Your task to perform on an android device: Open notification settings Image 0: 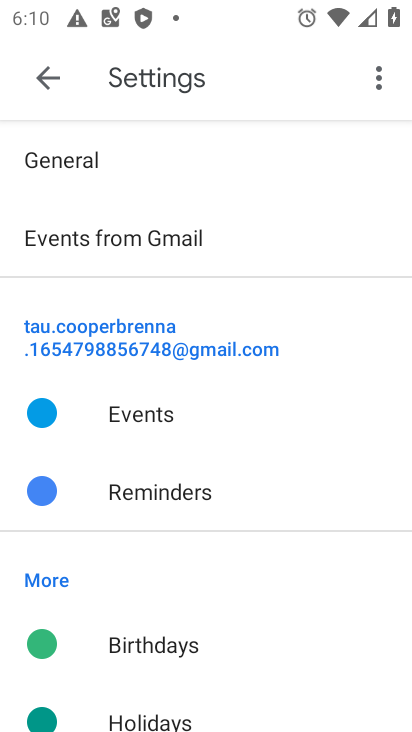
Step 0: press home button
Your task to perform on an android device: Open notification settings Image 1: 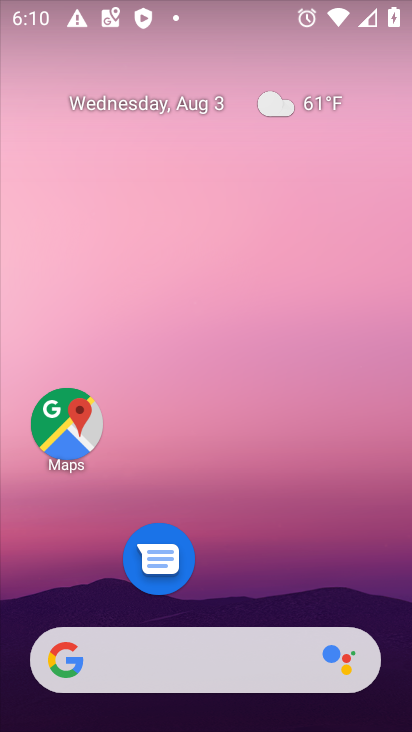
Step 1: drag from (194, 634) to (214, 217)
Your task to perform on an android device: Open notification settings Image 2: 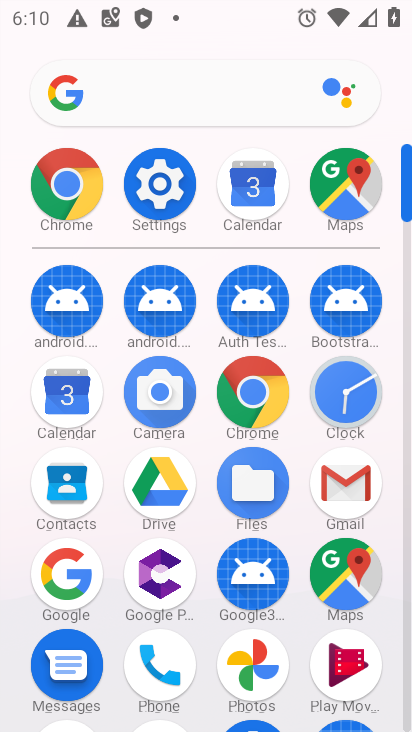
Step 2: click (165, 188)
Your task to perform on an android device: Open notification settings Image 3: 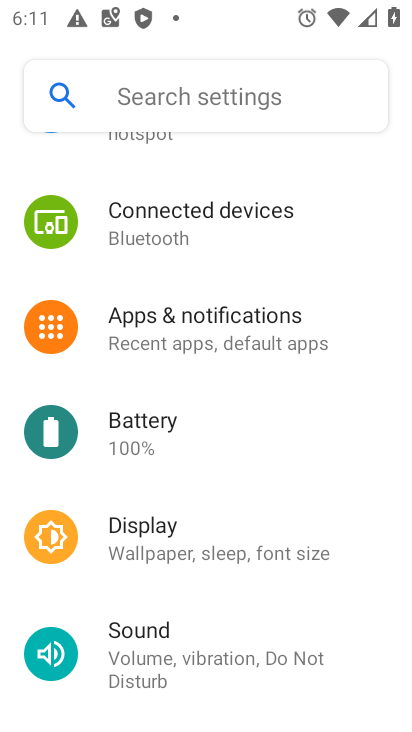
Step 3: drag from (161, 172) to (232, 519)
Your task to perform on an android device: Open notification settings Image 4: 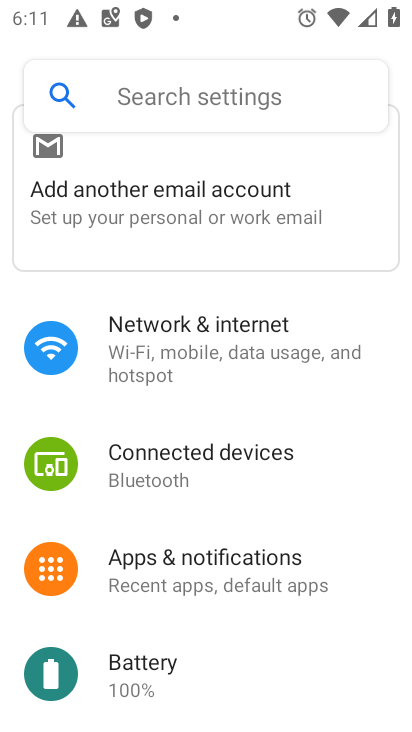
Step 4: drag from (158, 674) to (155, 244)
Your task to perform on an android device: Open notification settings Image 5: 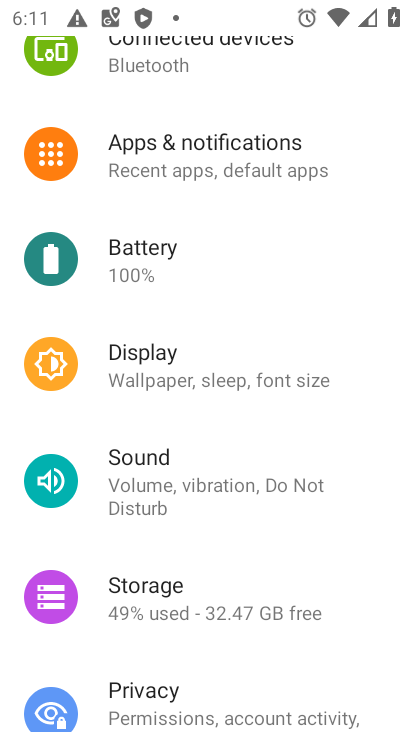
Step 5: click (194, 153)
Your task to perform on an android device: Open notification settings Image 6: 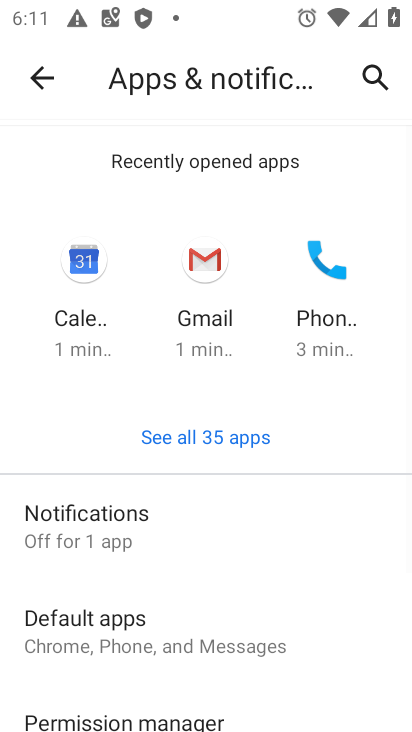
Step 6: drag from (105, 574) to (117, 132)
Your task to perform on an android device: Open notification settings Image 7: 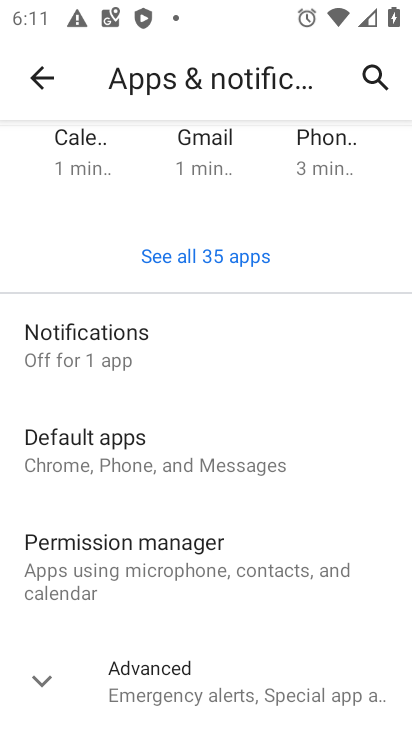
Step 7: click (69, 352)
Your task to perform on an android device: Open notification settings Image 8: 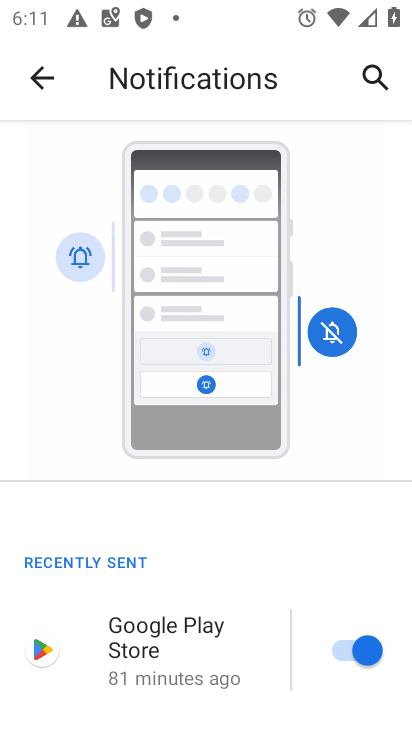
Step 8: task complete